Your task to perform on an android device: turn off notifications settings in the gmail app Image 0: 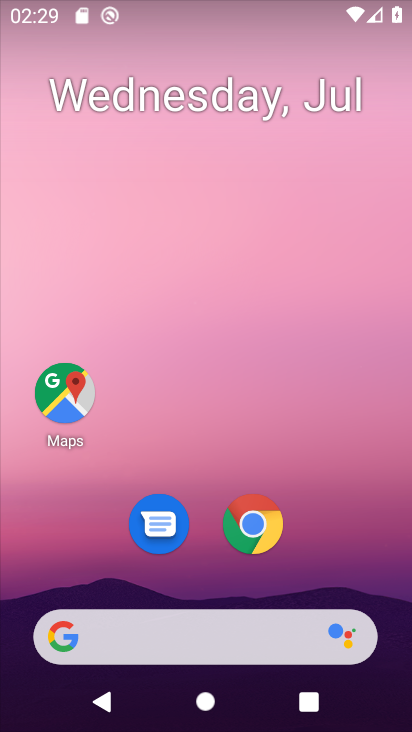
Step 0: drag from (312, 539) to (325, 38)
Your task to perform on an android device: turn off notifications settings in the gmail app Image 1: 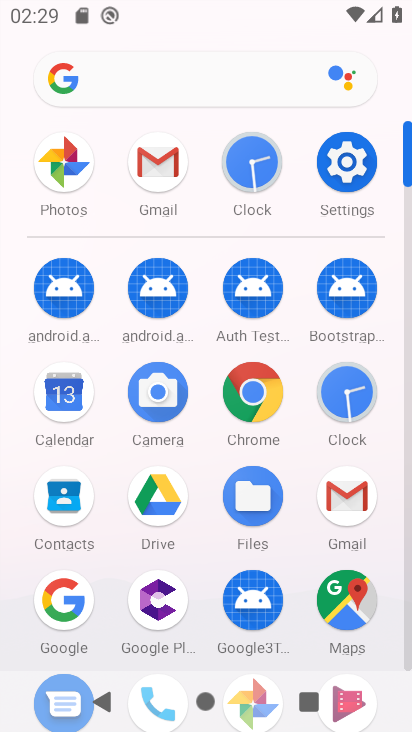
Step 1: click (355, 164)
Your task to perform on an android device: turn off notifications settings in the gmail app Image 2: 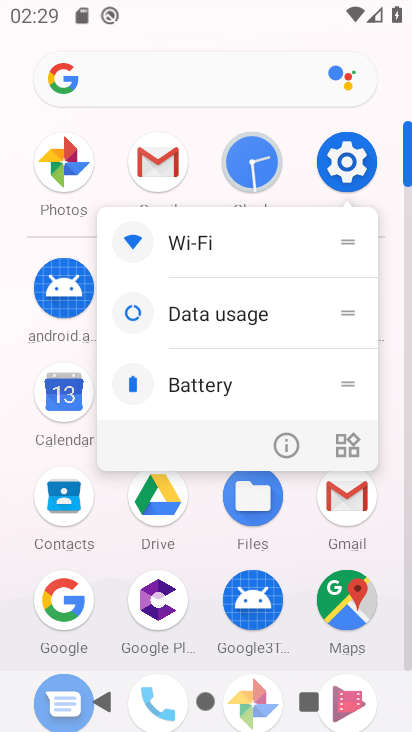
Step 2: click (346, 169)
Your task to perform on an android device: turn off notifications settings in the gmail app Image 3: 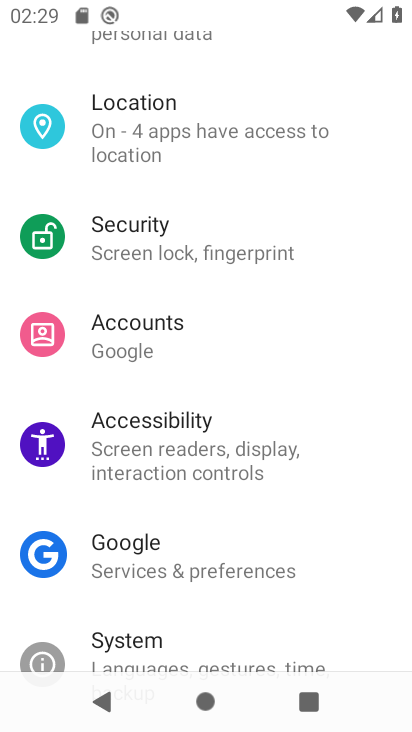
Step 3: drag from (265, 216) to (252, 583)
Your task to perform on an android device: turn off notifications settings in the gmail app Image 4: 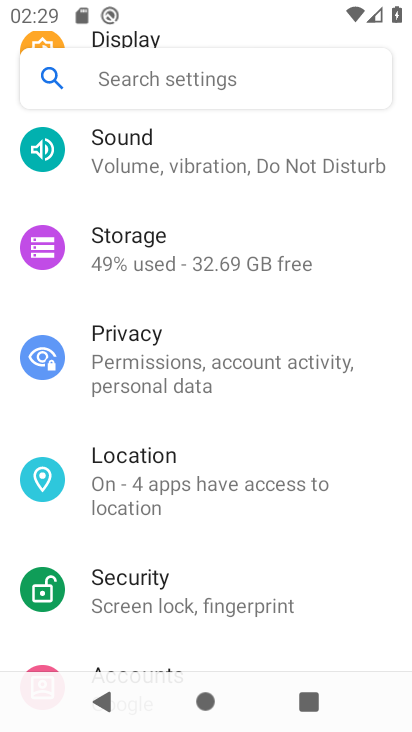
Step 4: drag from (262, 216) to (283, 617)
Your task to perform on an android device: turn off notifications settings in the gmail app Image 5: 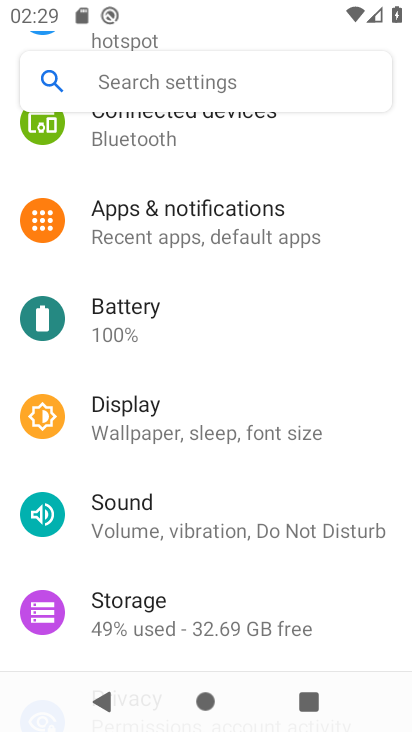
Step 5: click (208, 218)
Your task to perform on an android device: turn off notifications settings in the gmail app Image 6: 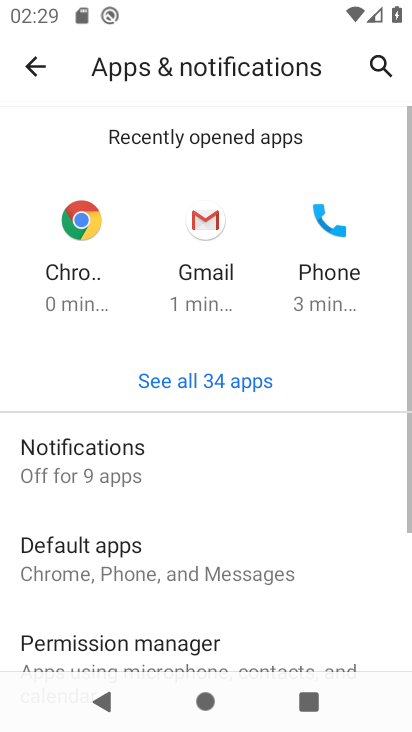
Step 6: click (200, 222)
Your task to perform on an android device: turn off notifications settings in the gmail app Image 7: 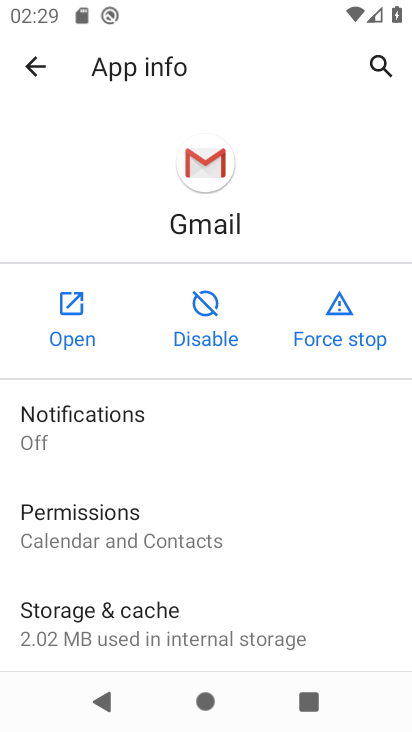
Step 7: click (96, 414)
Your task to perform on an android device: turn off notifications settings in the gmail app Image 8: 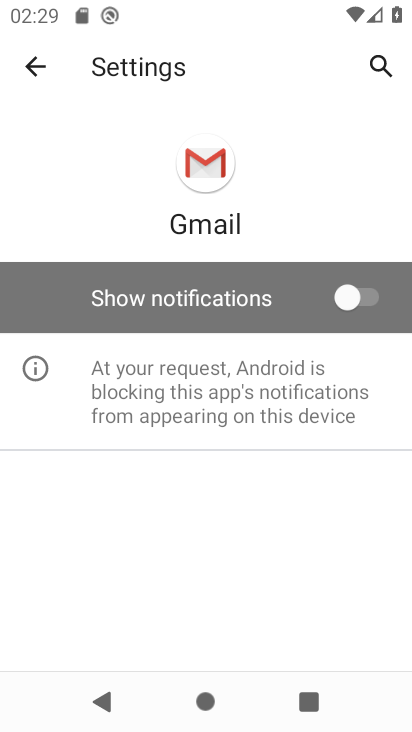
Step 8: task complete